Your task to perform on an android device: toggle notifications settings in the gmail app Image 0: 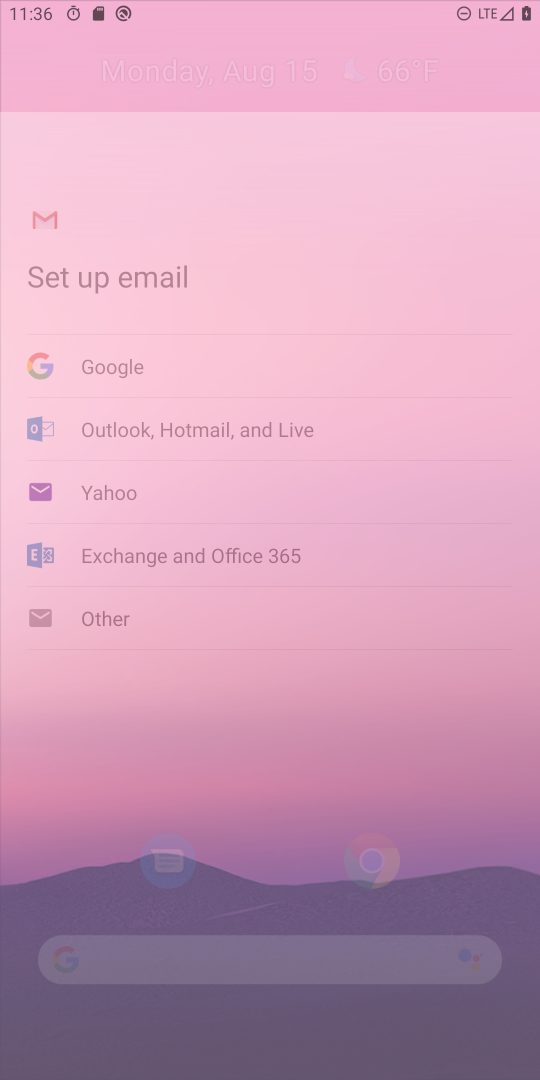
Step 0: press home button
Your task to perform on an android device: toggle notifications settings in the gmail app Image 1: 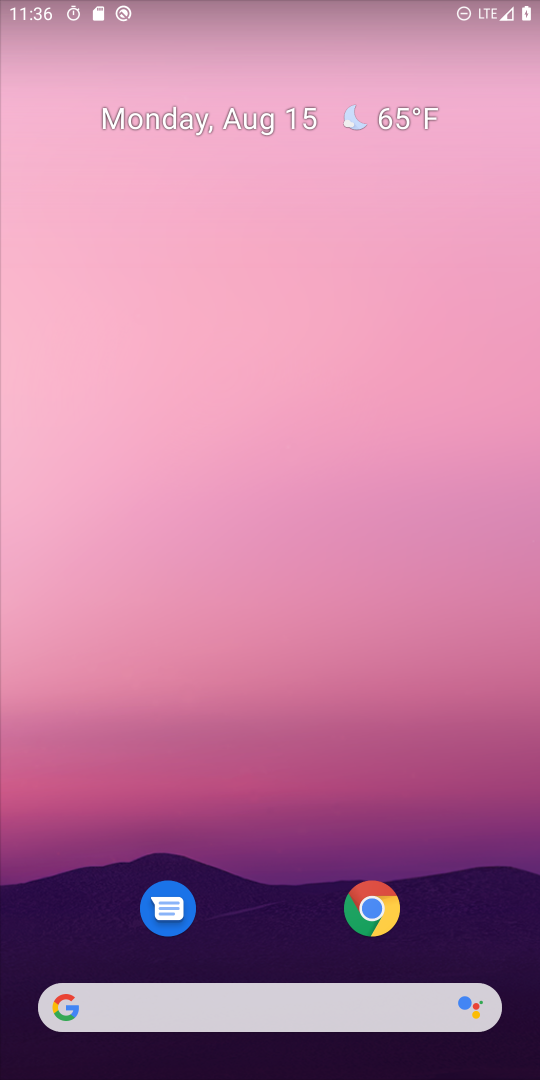
Step 1: drag from (279, 920) to (312, 15)
Your task to perform on an android device: toggle notifications settings in the gmail app Image 2: 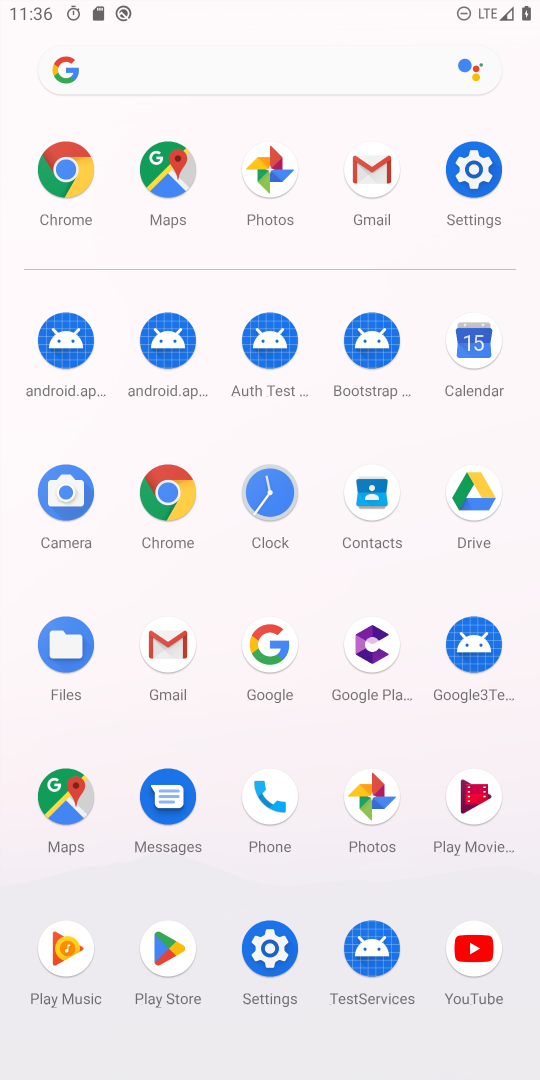
Step 2: click (363, 193)
Your task to perform on an android device: toggle notifications settings in the gmail app Image 3: 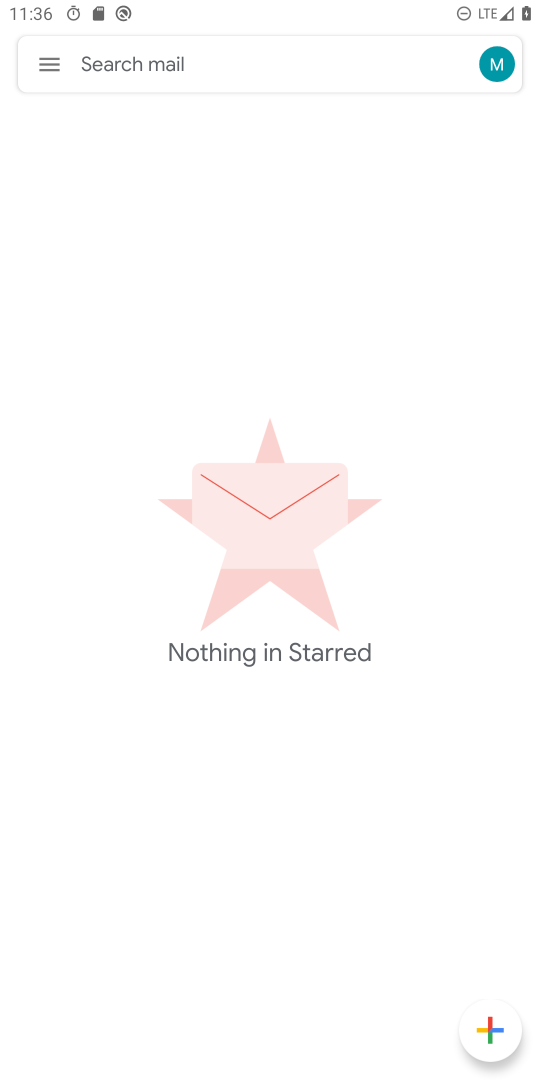
Step 3: click (55, 70)
Your task to perform on an android device: toggle notifications settings in the gmail app Image 4: 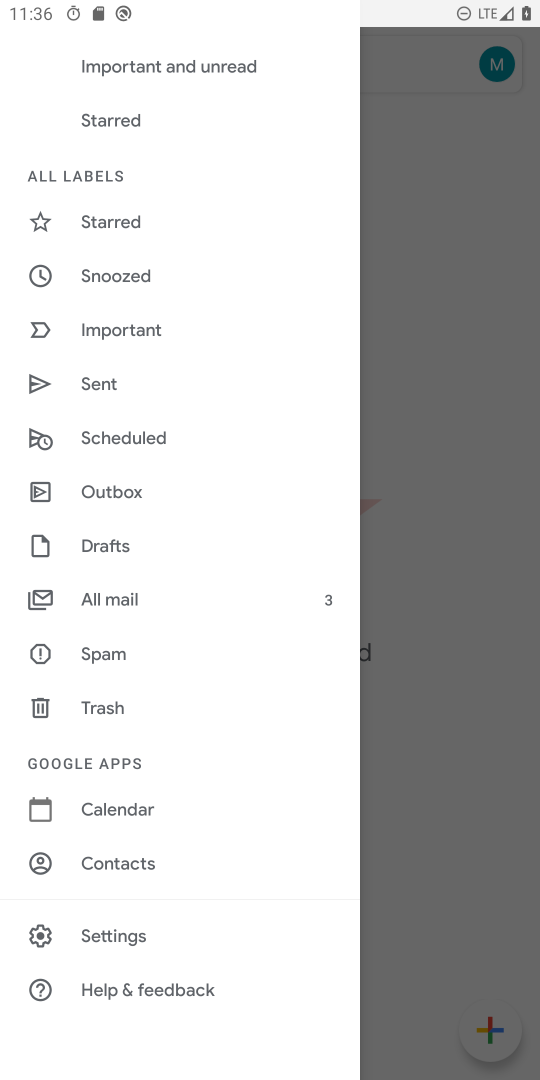
Step 4: click (109, 946)
Your task to perform on an android device: toggle notifications settings in the gmail app Image 5: 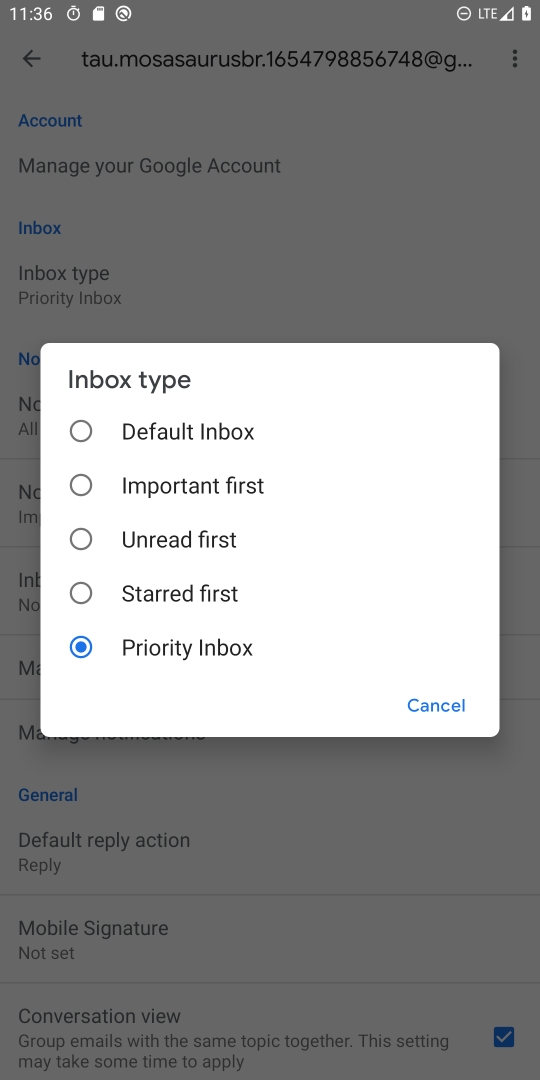
Step 5: click (451, 697)
Your task to perform on an android device: toggle notifications settings in the gmail app Image 6: 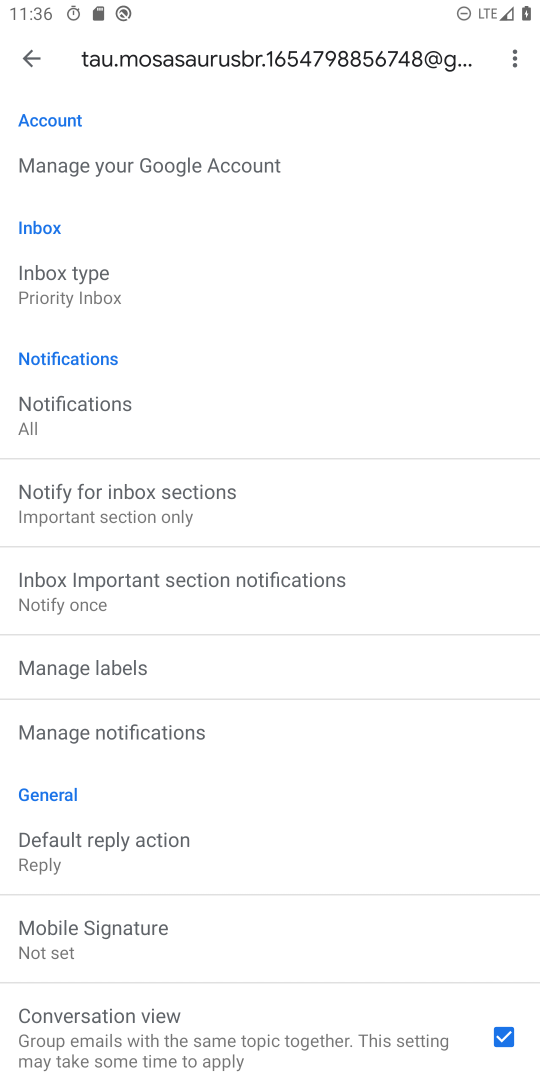
Step 6: click (71, 432)
Your task to perform on an android device: toggle notifications settings in the gmail app Image 7: 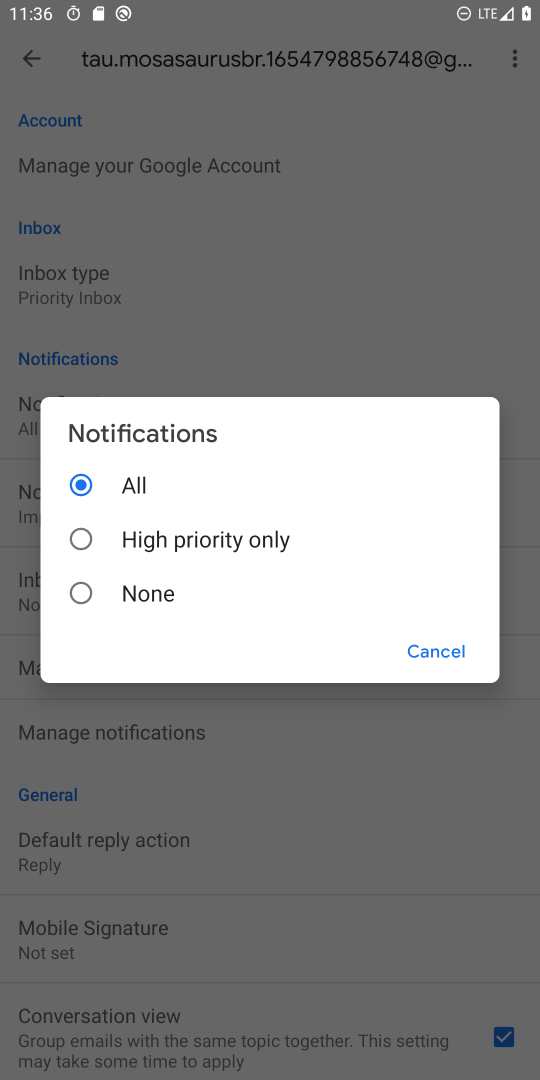
Step 7: click (232, 547)
Your task to perform on an android device: toggle notifications settings in the gmail app Image 8: 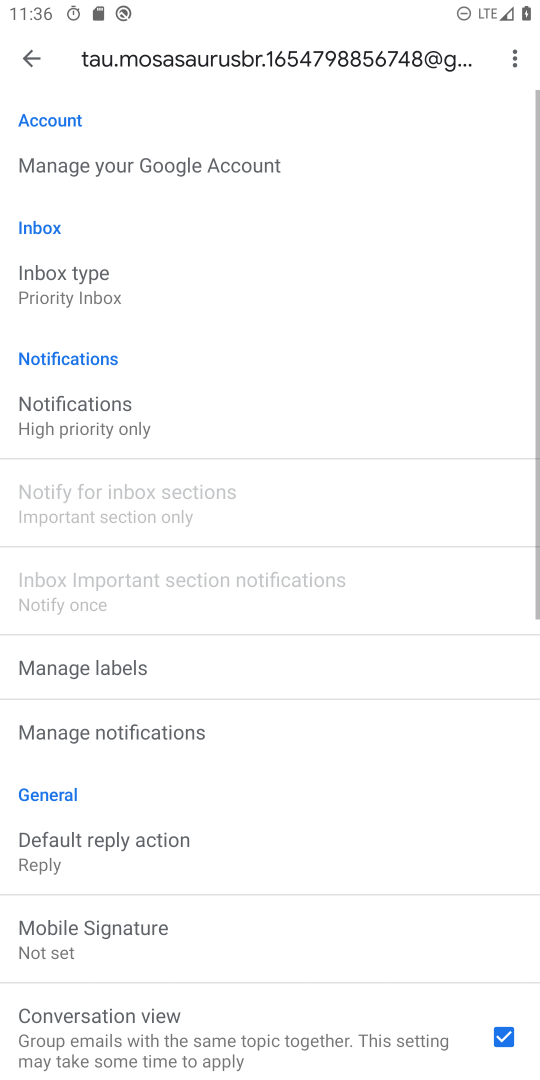
Step 8: task complete